Your task to perform on an android device: make emails show in primary in the gmail app Image 0: 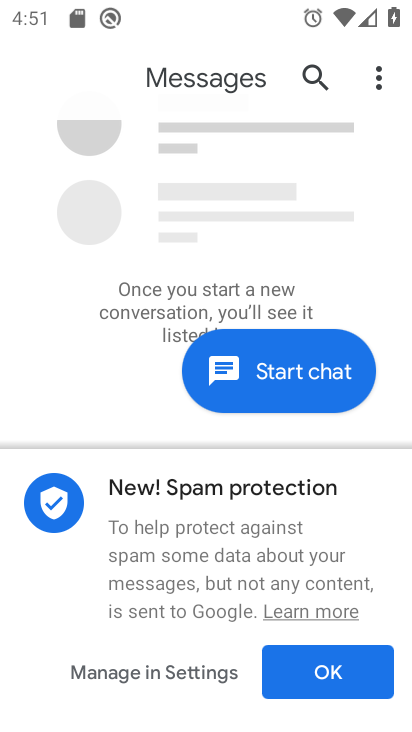
Step 0: press home button
Your task to perform on an android device: make emails show in primary in the gmail app Image 1: 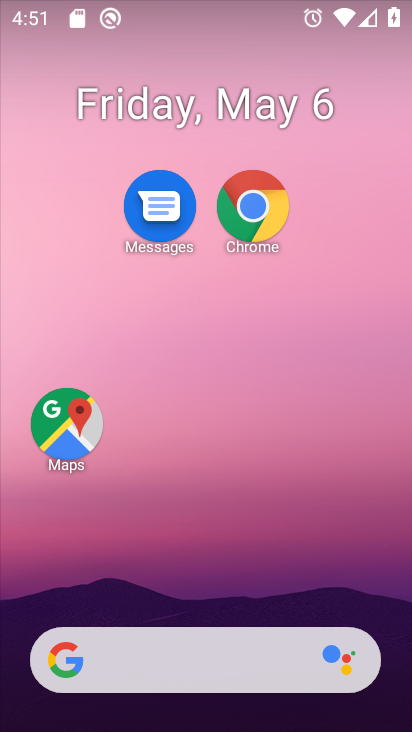
Step 1: drag from (241, 633) to (249, 352)
Your task to perform on an android device: make emails show in primary in the gmail app Image 2: 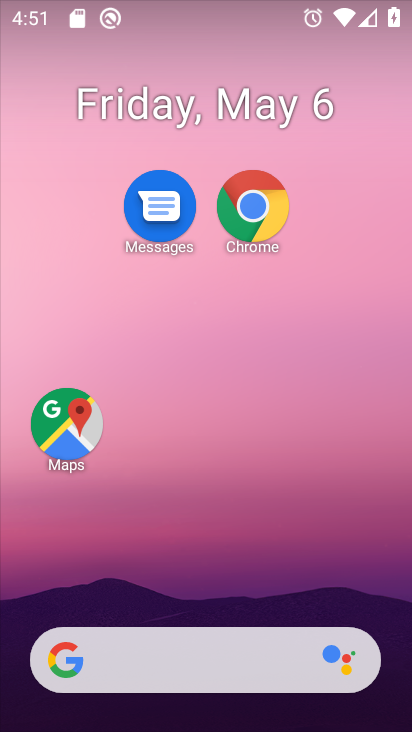
Step 2: drag from (187, 635) to (192, 241)
Your task to perform on an android device: make emails show in primary in the gmail app Image 3: 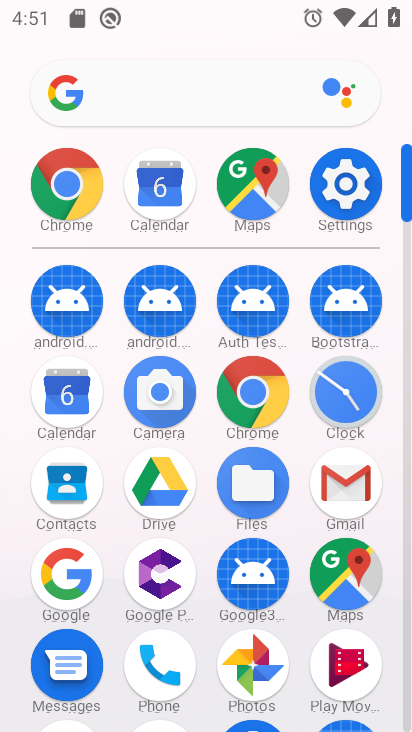
Step 3: click (342, 491)
Your task to perform on an android device: make emails show in primary in the gmail app Image 4: 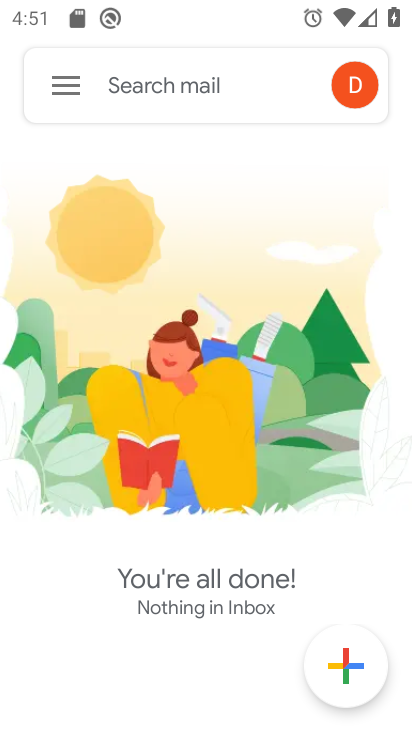
Step 4: click (58, 87)
Your task to perform on an android device: make emails show in primary in the gmail app Image 5: 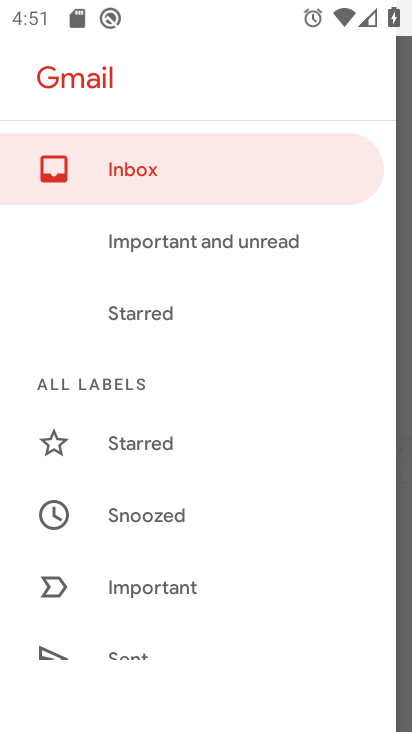
Step 5: drag from (207, 647) to (206, 463)
Your task to perform on an android device: make emails show in primary in the gmail app Image 6: 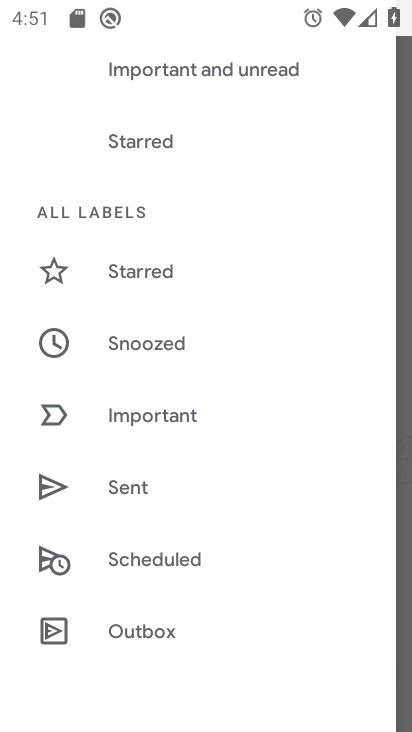
Step 6: drag from (175, 642) to (172, 244)
Your task to perform on an android device: make emails show in primary in the gmail app Image 7: 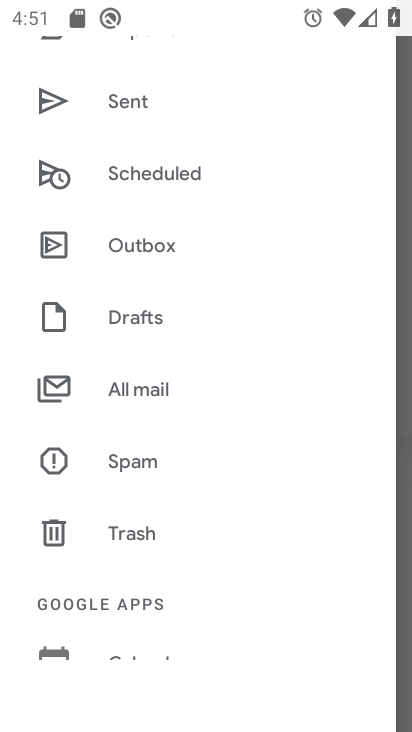
Step 7: drag from (156, 636) to (143, 283)
Your task to perform on an android device: make emails show in primary in the gmail app Image 8: 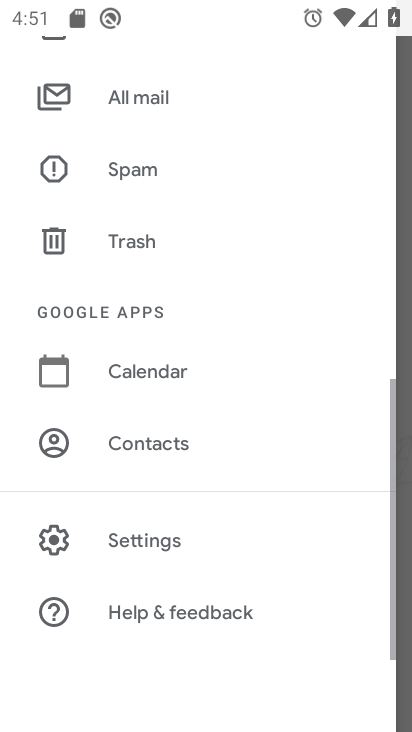
Step 8: click (136, 538)
Your task to perform on an android device: make emails show in primary in the gmail app Image 9: 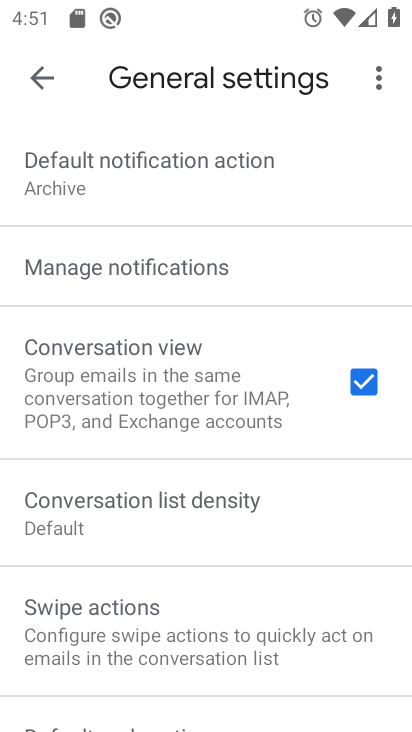
Step 9: drag from (180, 691) to (208, 374)
Your task to perform on an android device: make emails show in primary in the gmail app Image 10: 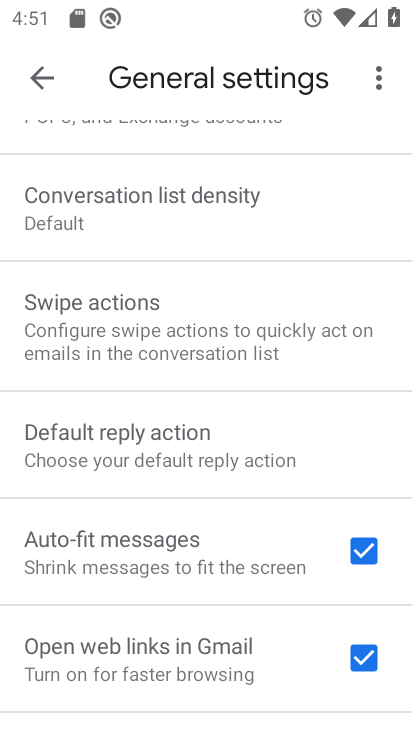
Step 10: drag from (105, 710) to (139, 403)
Your task to perform on an android device: make emails show in primary in the gmail app Image 11: 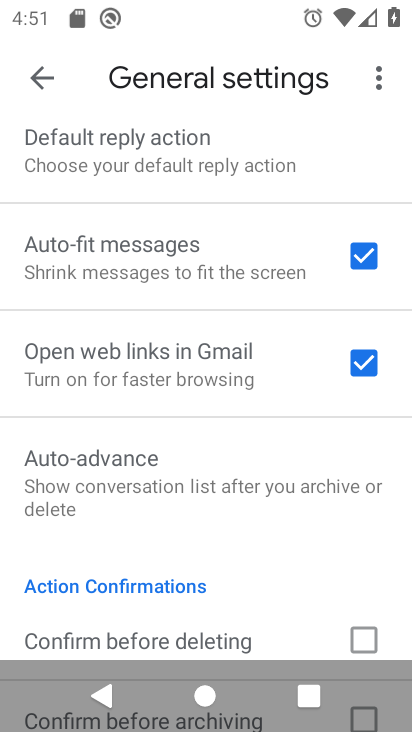
Step 11: drag from (126, 643) to (159, 318)
Your task to perform on an android device: make emails show in primary in the gmail app Image 12: 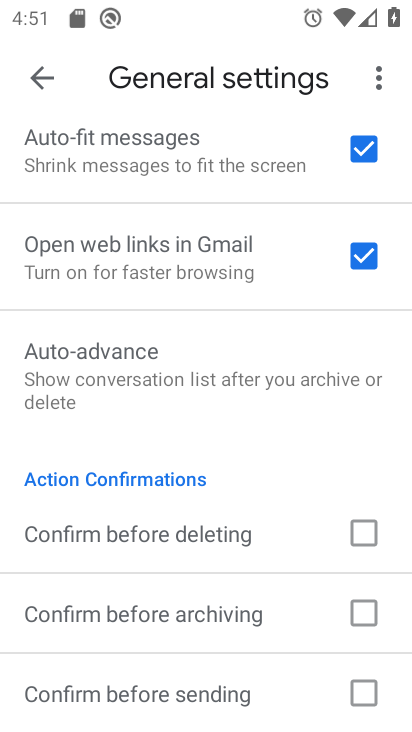
Step 12: drag from (161, 199) to (126, 610)
Your task to perform on an android device: make emails show in primary in the gmail app Image 13: 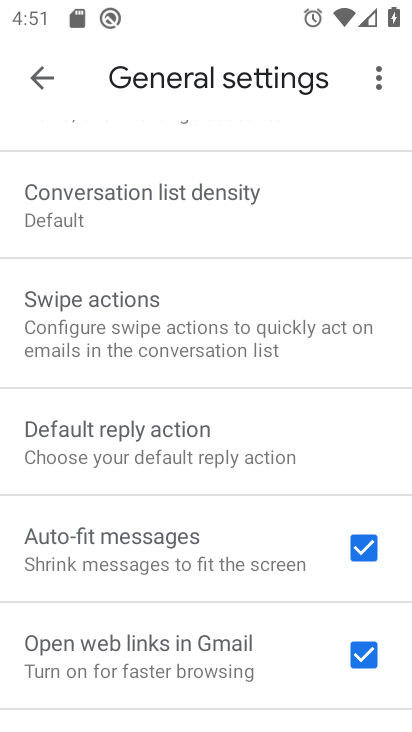
Step 13: drag from (170, 186) to (172, 532)
Your task to perform on an android device: make emails show in primary in the gmail app Image 14: 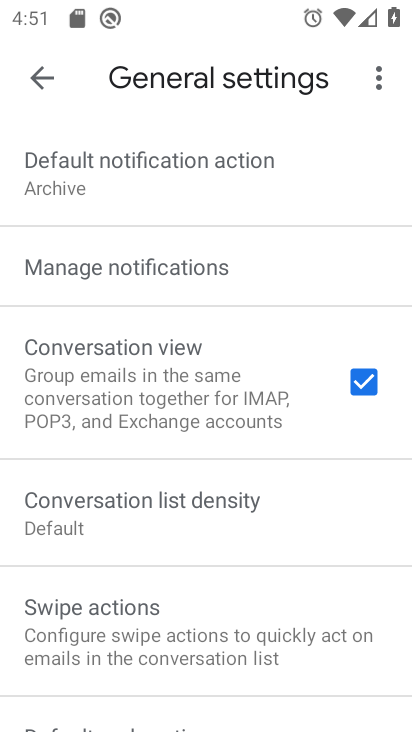
Step 14: click (33, 84)
Your task to perform on an android device: make emails show in primary in the gmail app Image 15: 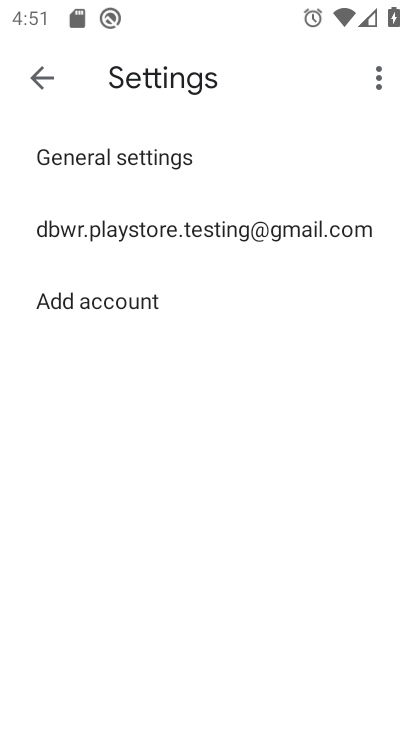
Step 15: click (97, 231)
Your task to perform on an android device: make emails show in primary in the gmail app Image 16: 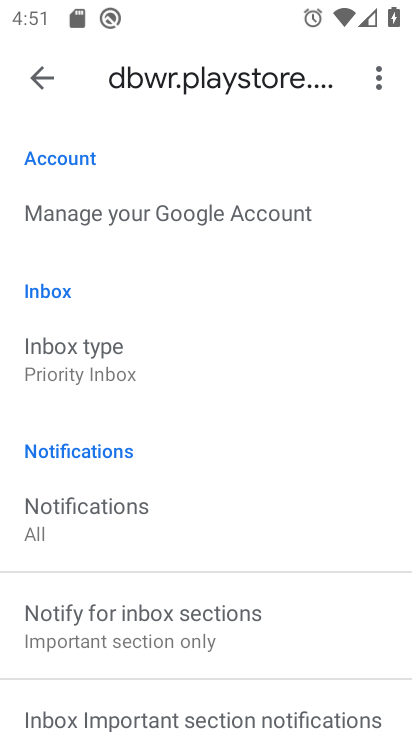
Step 16: click (78, 357)
Your task to perform on an android device: make emails show in primary in the gmail app Image 17: 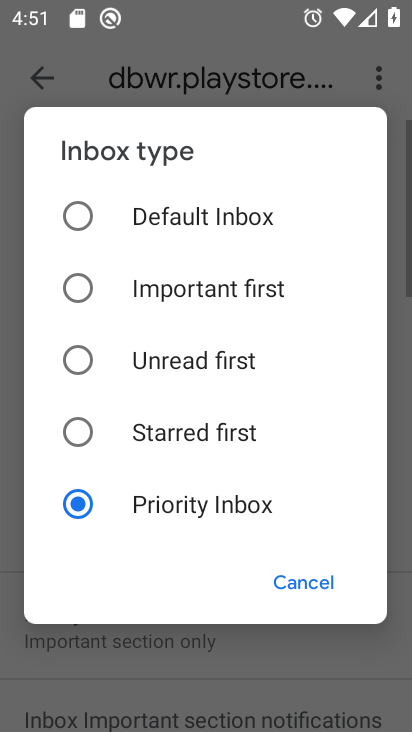
Step 17: click (114, 215)
Your task to perform on an android device: make emails show in primary in the gmail app Image 18: 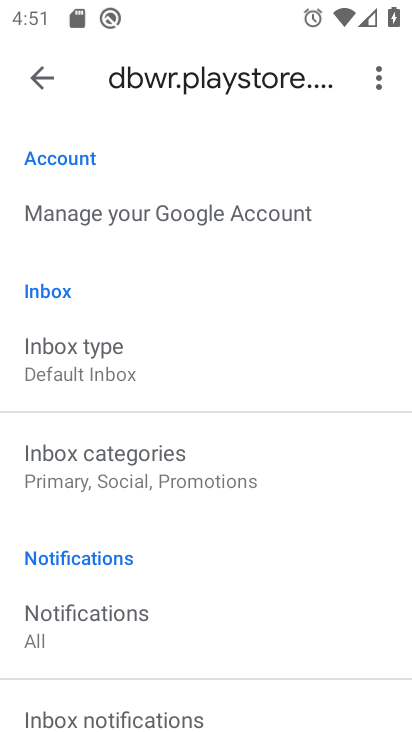
Step 18: click (97, 477)
Your task to perform on an android device: make emails show in primary in the gmail app Image 19: 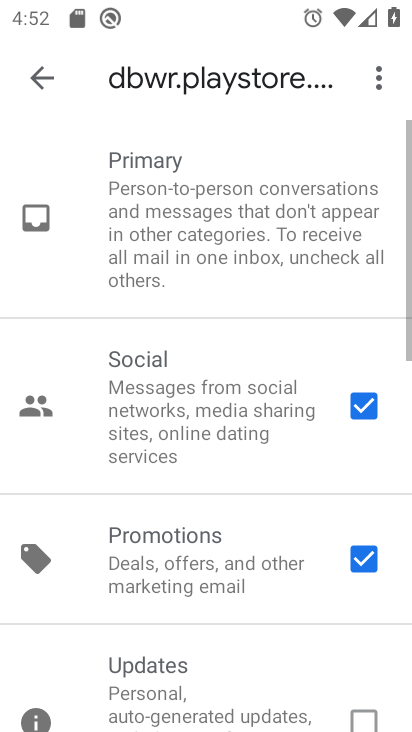
Step 19: click (360, 565)
Your task to perform on an android device: make emails show in primary in the gmail app Image 20: 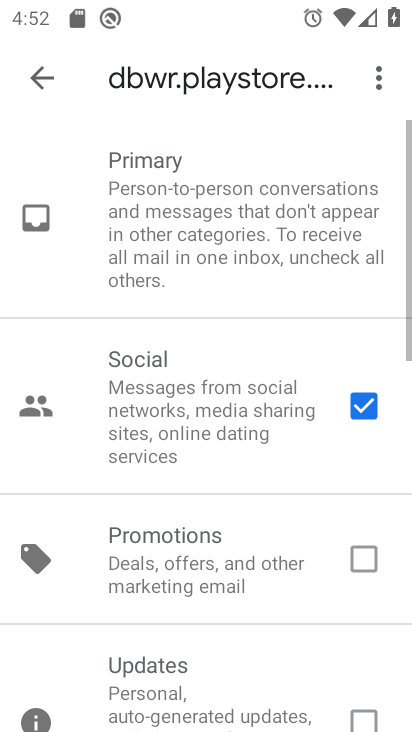
Step 20: click (356, 405)
Your task to perform on an android device: make emails show in primary in the gmail app Image 21: 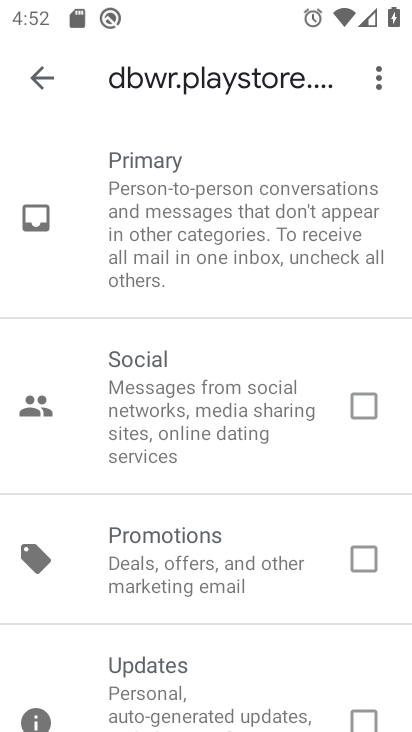
Step 21: click (41, 72)
Your task to perform on an android device: make emails show in primary in the gmail app Image 22: 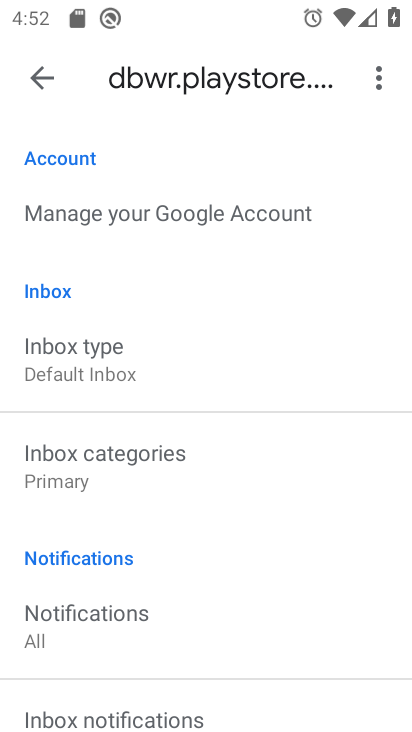
Step 22: task complete